Your task to perform on an android device: Do I have any events this weekend? Image 0: 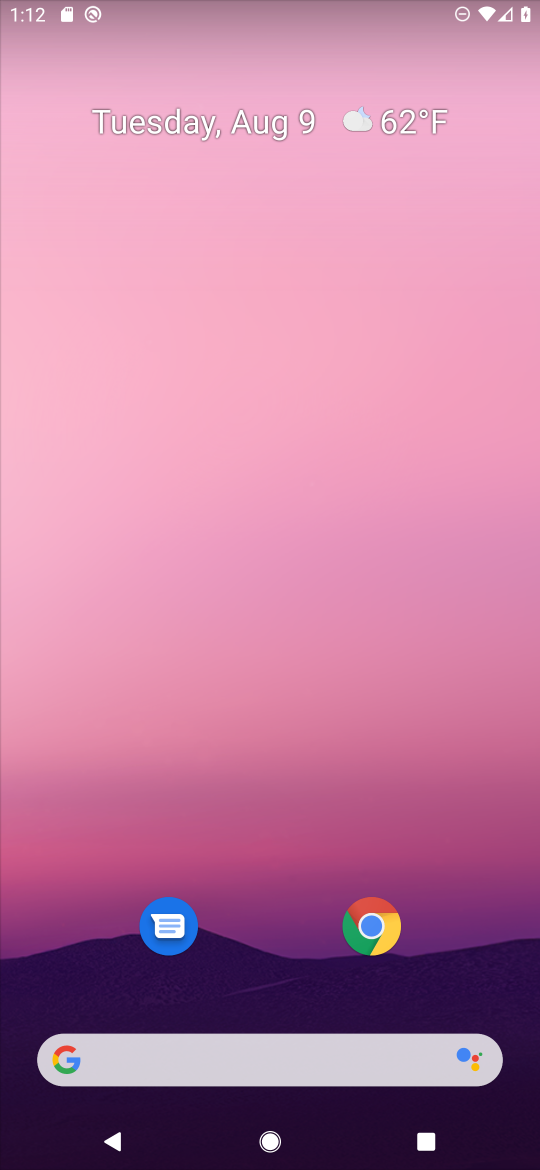
Step 0: drag from (47, 663) to (207, 193)
Your task to perform on an android device: Do I have any events this weekend? Image 1: 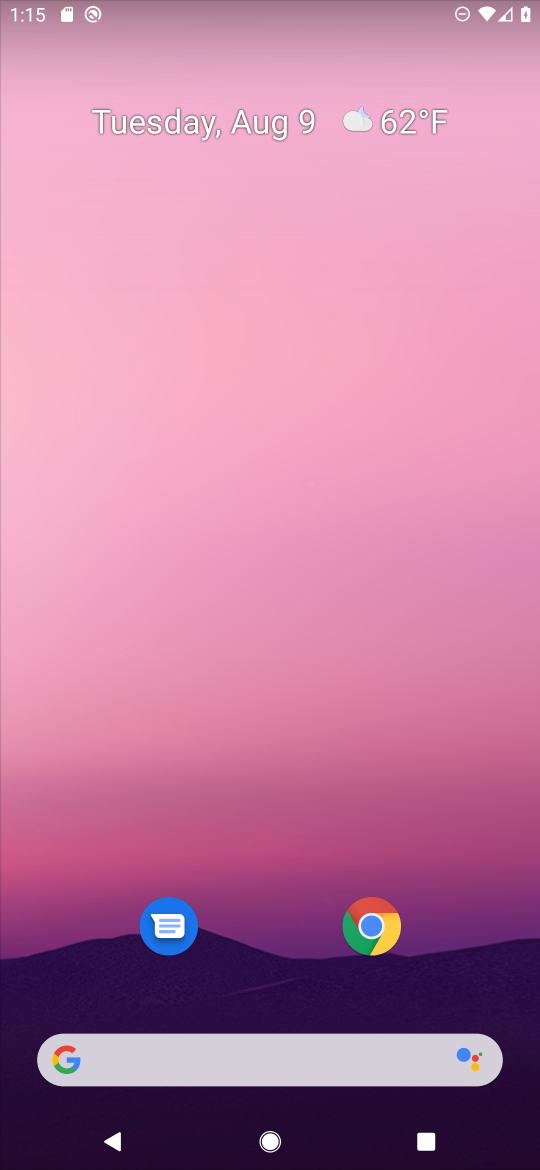
Step 1: drag from (186, 522) to (380, 30)
Your task to perform on an android device: Do I have any events this weekend? Image 2: 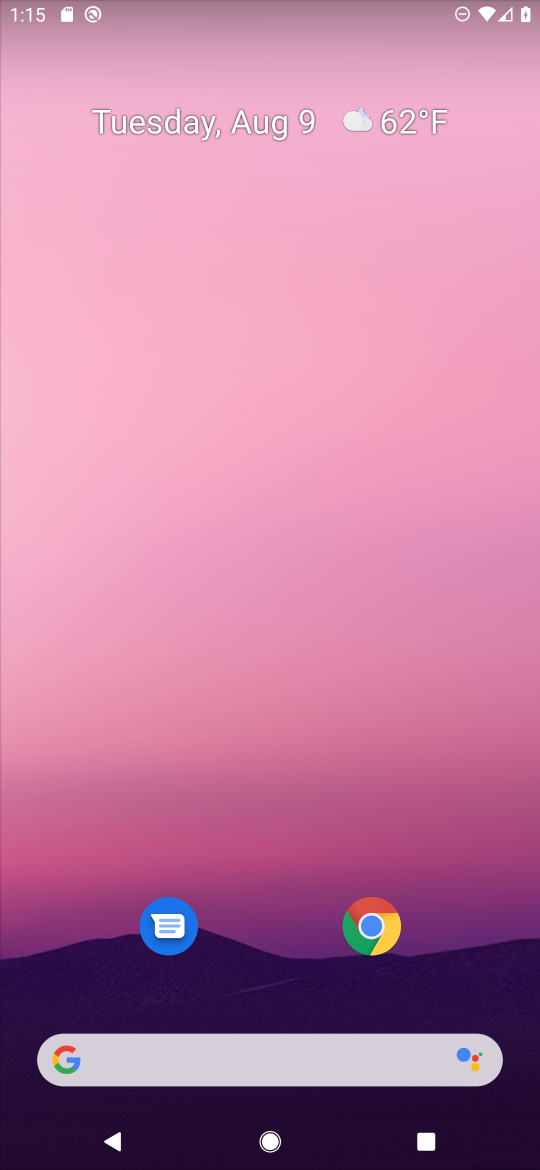
Step 2: drag from (168, 792) to (409, 145)
Your task to perform on an android device: Do I have any events this weekend? Image 3: 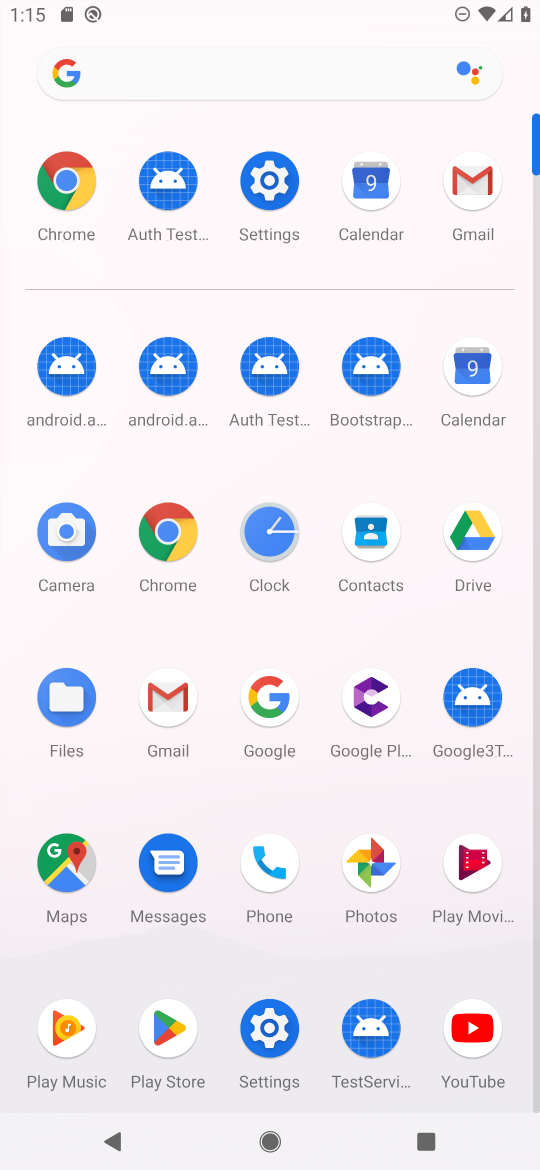
Step 3: click (476, 356)
Your task to perform on an android device: Do I have any events this weekend? Image 4: 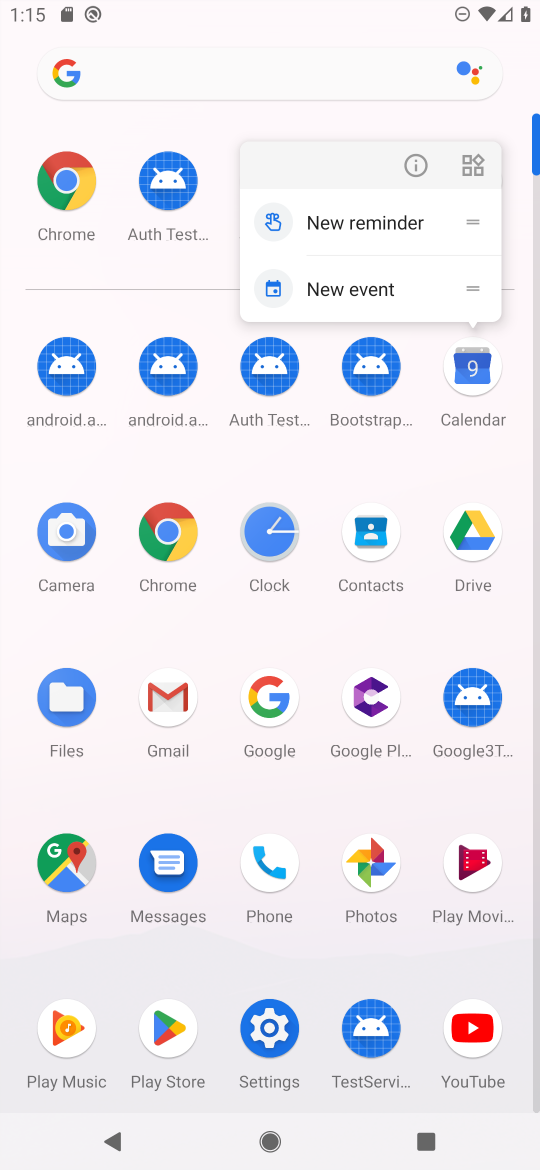
Step 4: click (476, 356)
Your task to perform on an android device: Do I have any events this weekend? Image 5: 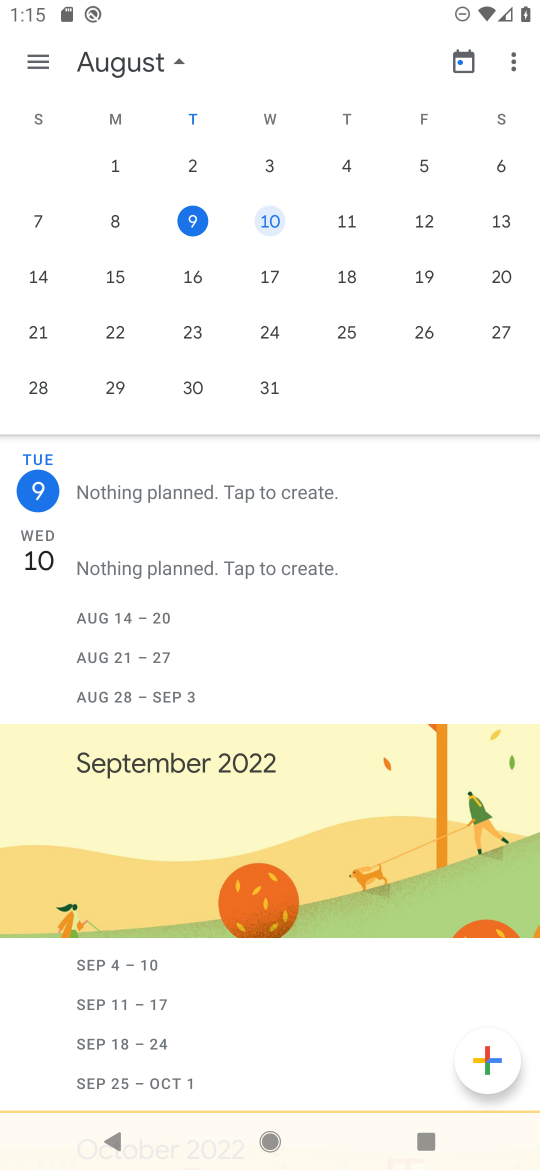
Step 5: click (502, 226)
Your task to perform on an android device: Do I have any events this weekend? Image 6: 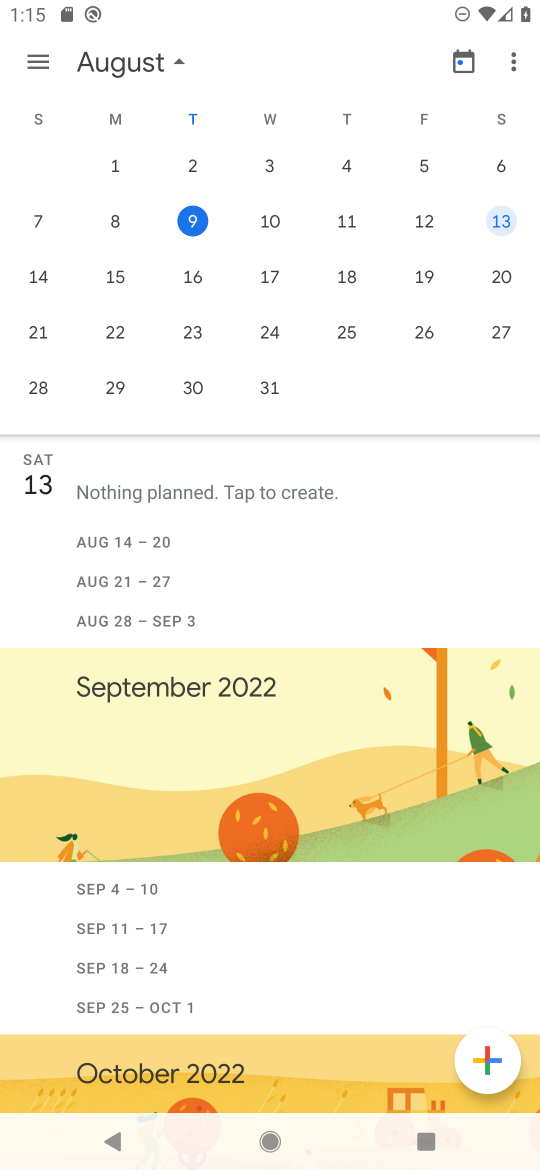
Step 6: click (42, 288)
Your task to perform on an android device: Do I have any events this weekend? Image 7: 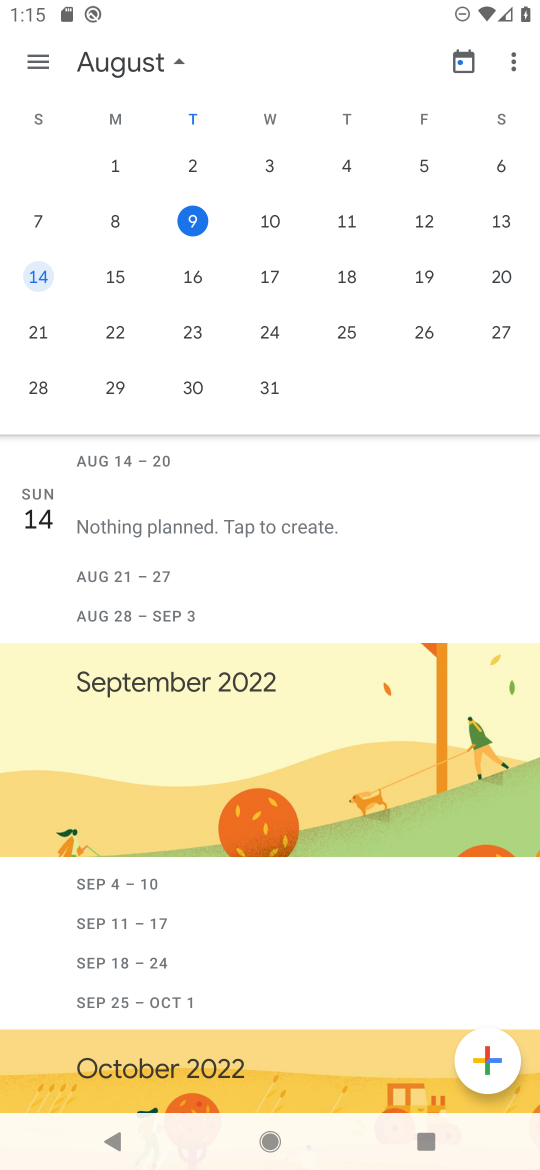
Step 7: task complete